Your task to perform on an android device: Go to battery settings Image 0: 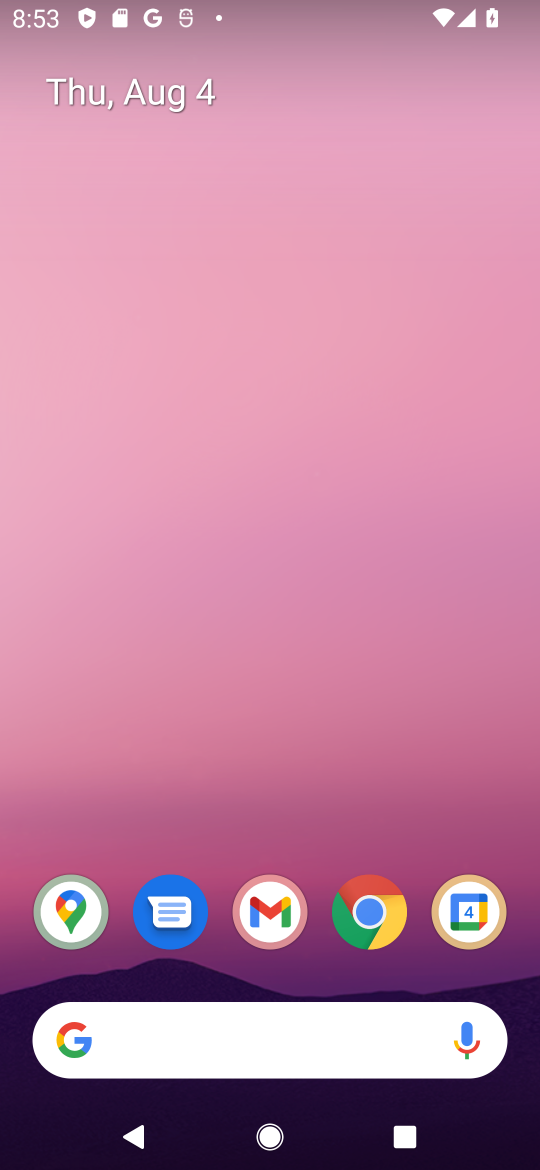
Step 0: drag from (489, 819) to (459, 6)
Your task to perform on an android device: Go to battery settings Image 1: 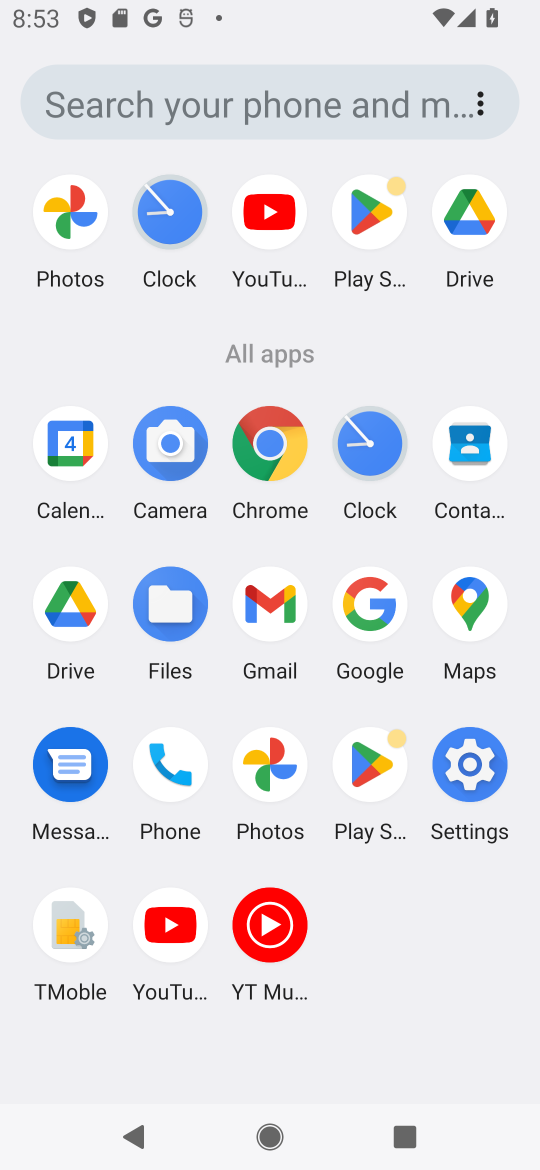
Step 1: click (483, 796)
Your task to perform on an android device: Go to battery settings Image 2: 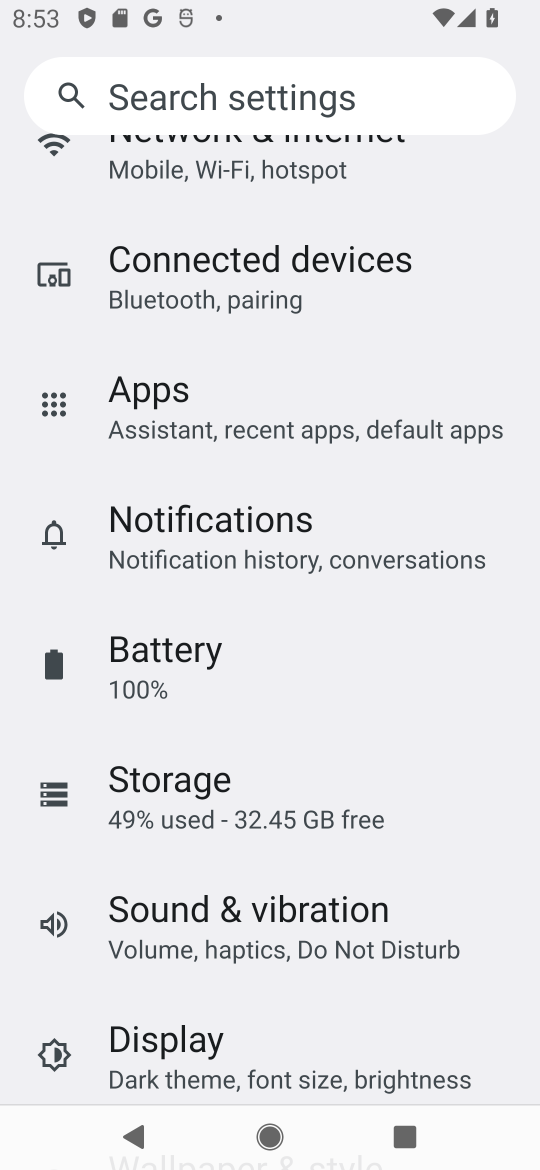
Step 2: click (309, 667)
Your task to perform on an android device: Go to battery settings Image 3: 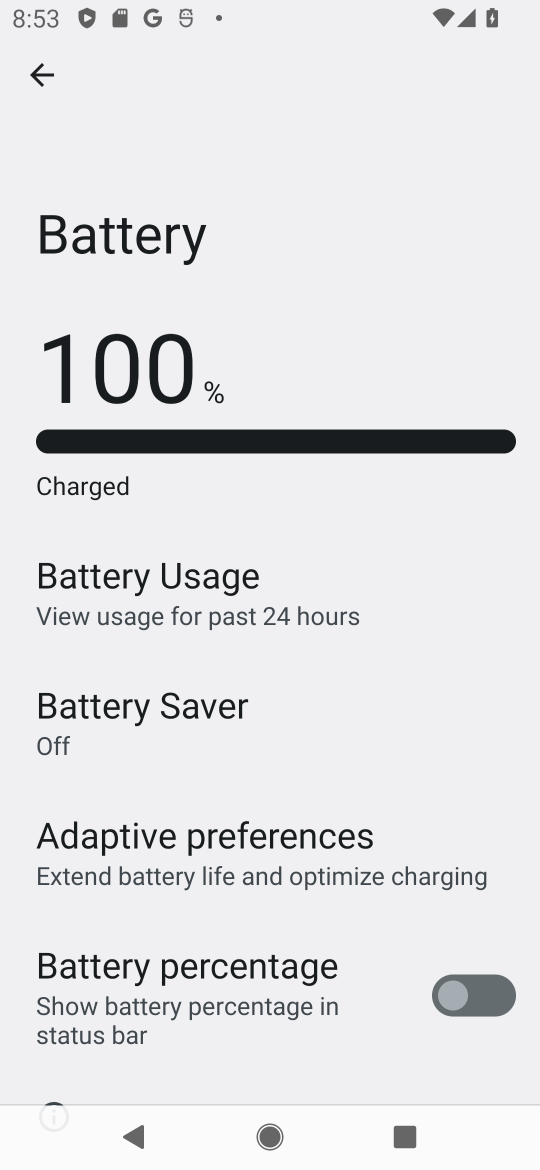
Step 3: task complete